Your task to perform on an android device: toggle notifications settings in the gmail app Image 0: 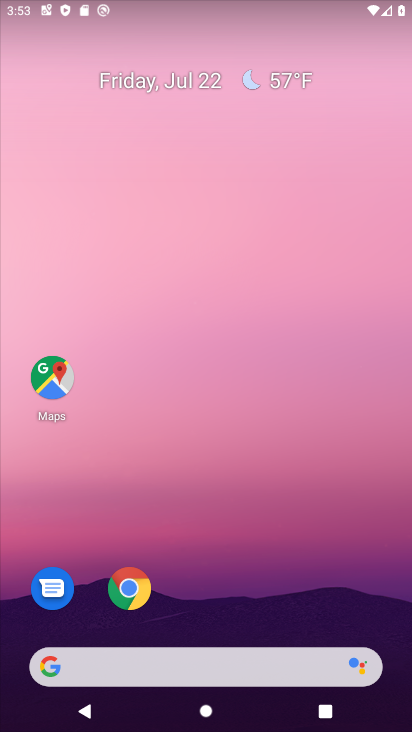
Step 0: drag from (199, 647) to (159, 57)
Your task to perform on an android device: toggle notifications settings in the gmail app Image 1: 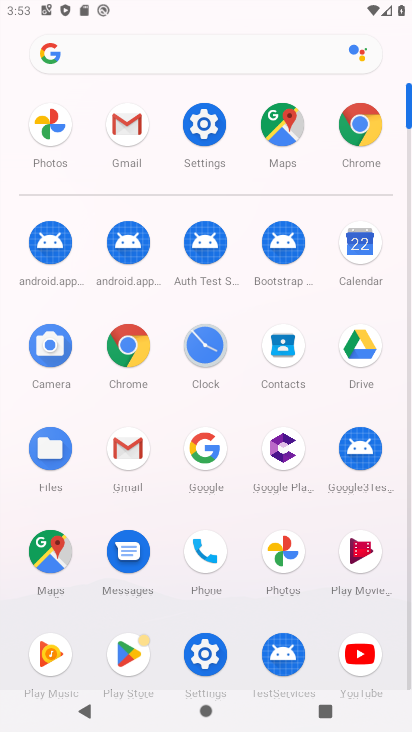
Step 1: click (138, 448)
Your task to perform on an android device: toggle notifications settings in the gmail app Image 2: 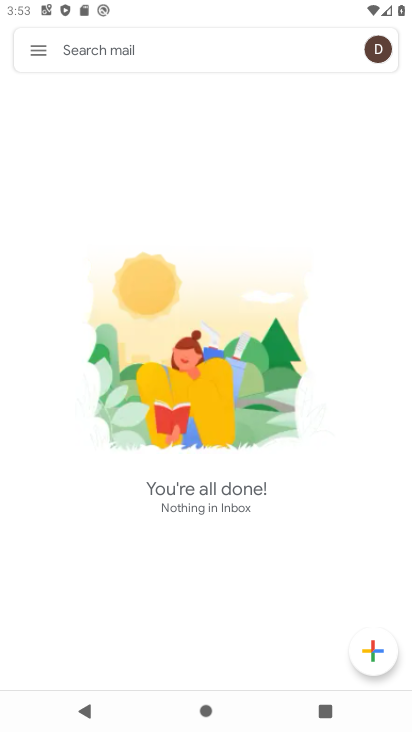
Step 2: click (30, 52)
Your task to perform on an android device: toggle notifications settings in the gmail app Image 3: 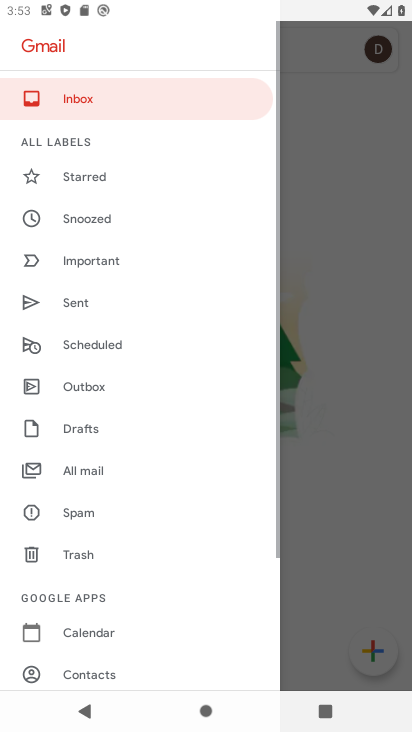
Step 3: drag from (80, 651) to (13, 71)
Your task to perform on an android device: toggle notifications settings in the gmail app Image 4: 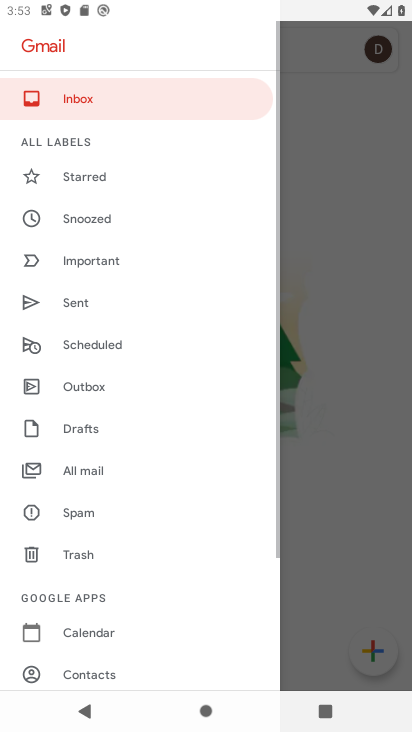
Step 4: drag from (61, 568) to (76, 72)
Your task to perform on an android device: toggle notifications settings in the gmail app Image 5: 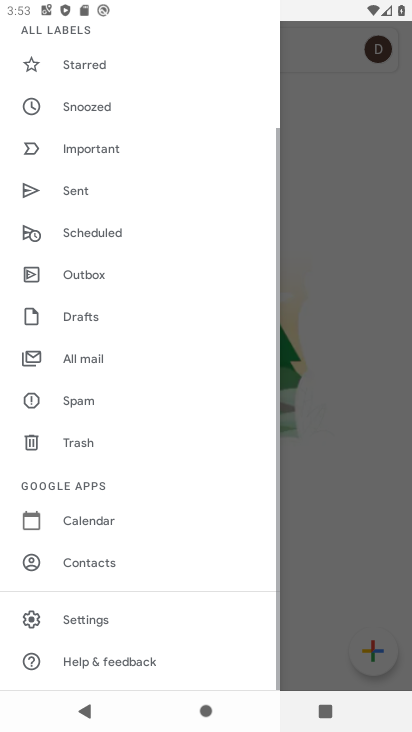
Step 5: click (82, 614)
Your task to perform on an android device: toggle notifications settings in the gmail app Image 6: 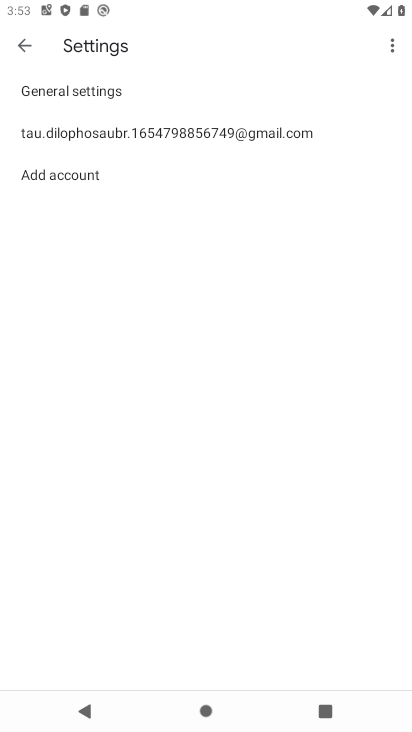
Step 6: click (52, 96)
Your task to perform on an android device: toggle notifications settings in the gmail app Image 7: 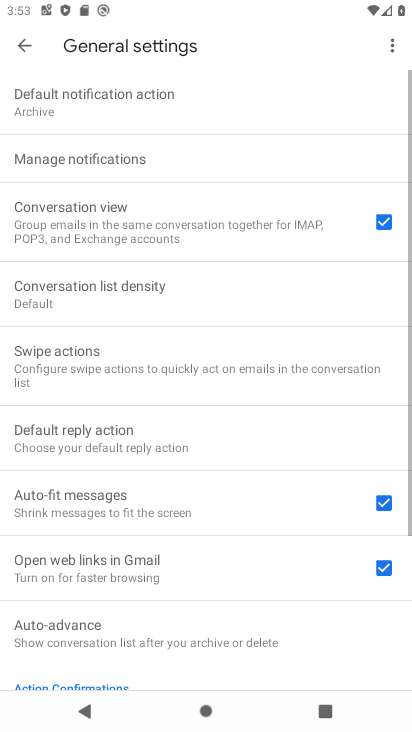
Step 7: click (87, 149)
Your task to perform on an android device: toggle notifications settings in the gmail app Image 8: 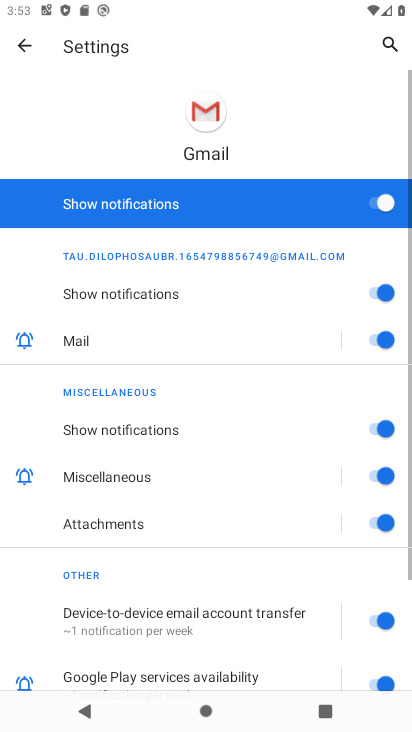
Step 8: click (378, 200)
Your task to perform on an android device: toggle notifications settings in the gmail app Image 9: 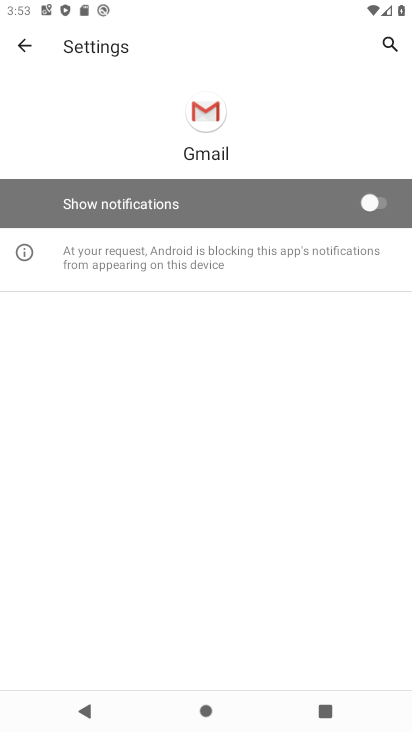
Step 9: task complete